Your task to perform on an android device: show emergency info Image 0: 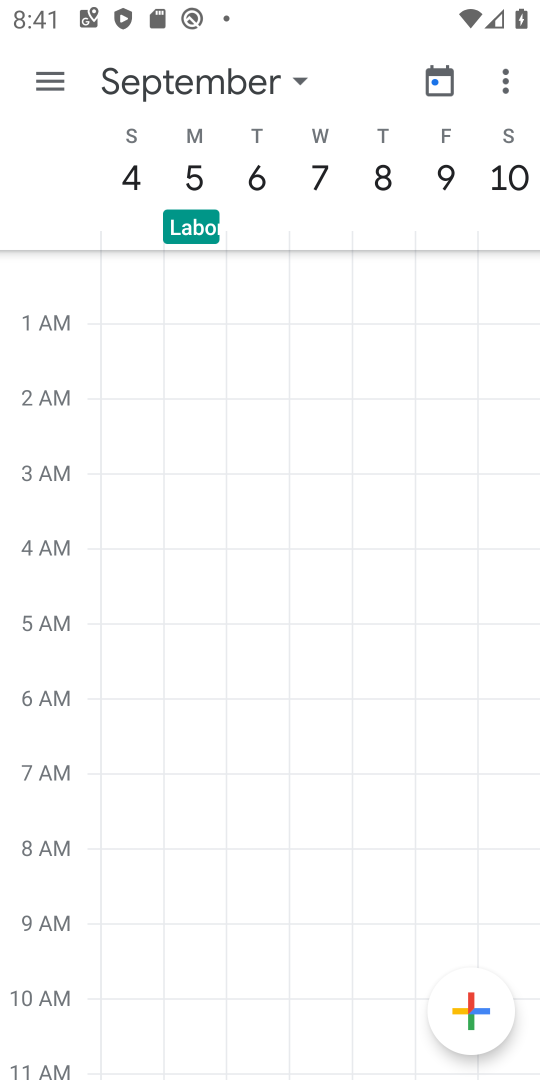
Step 0: press home button
Your task to perform on an android device: show emergency info Image 1: 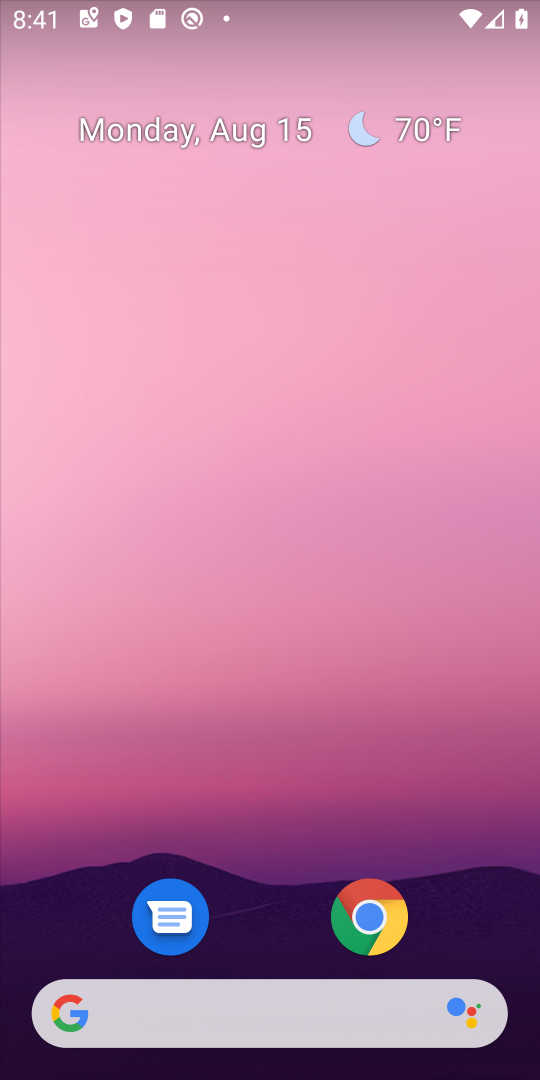
Step 1: drag from (292, 883) to (308, 1)
Your task to perform on an android device: show emergency info Image 2: 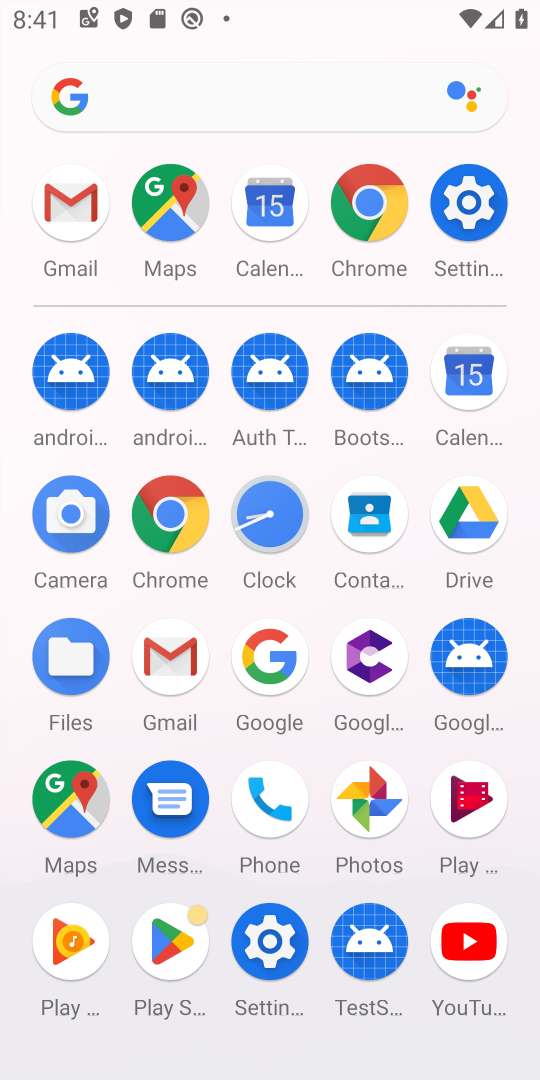
Step 2: click (468, 206)
Your task to perform on an android device: show emergency info Image 3: 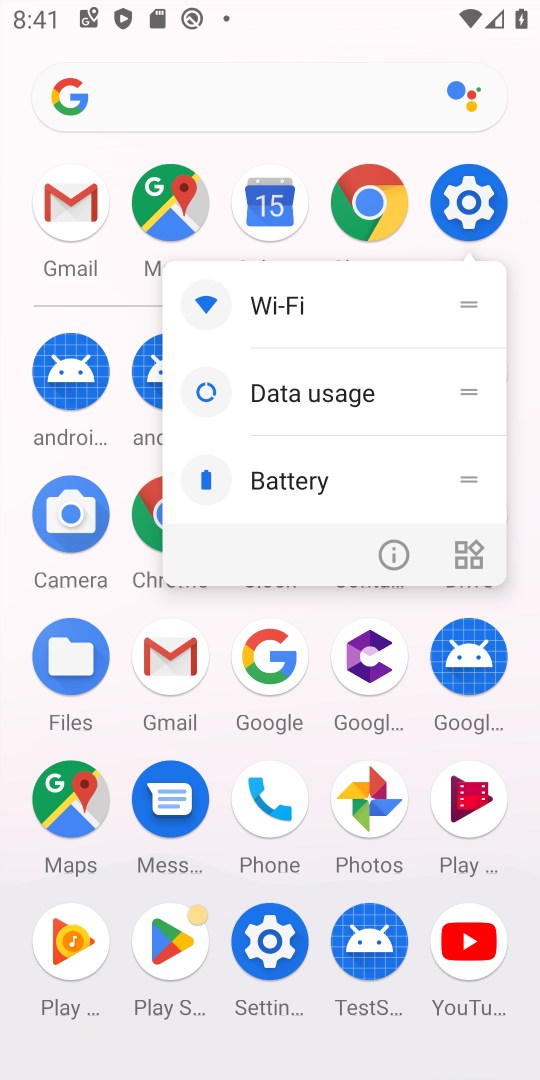
Step 3: click (468, 195)
Your task to perform on an android device: show emergency info Image 4: 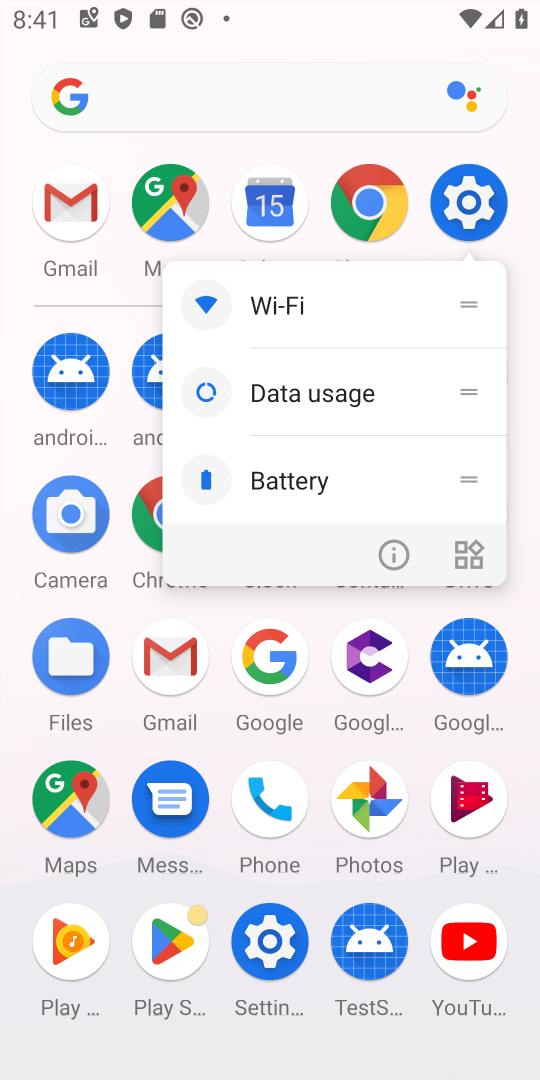
Step 4: click (465, 185)
Your task to perform on an android device: show emergency info Image 5: 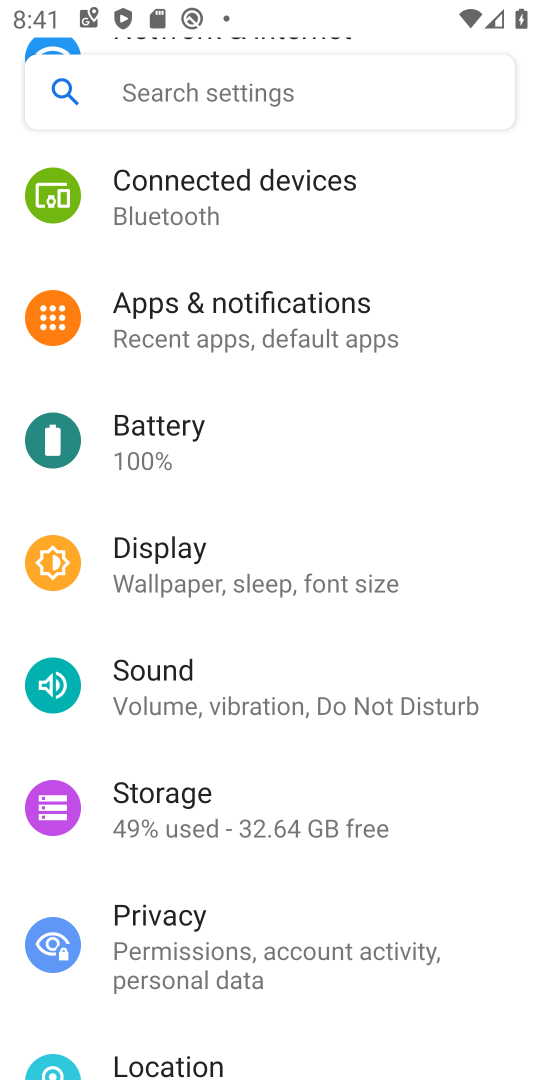
Step 5: drag from (318, 738) to (374, 16)
Your task to perform on an android device: show emergency info Image 6: 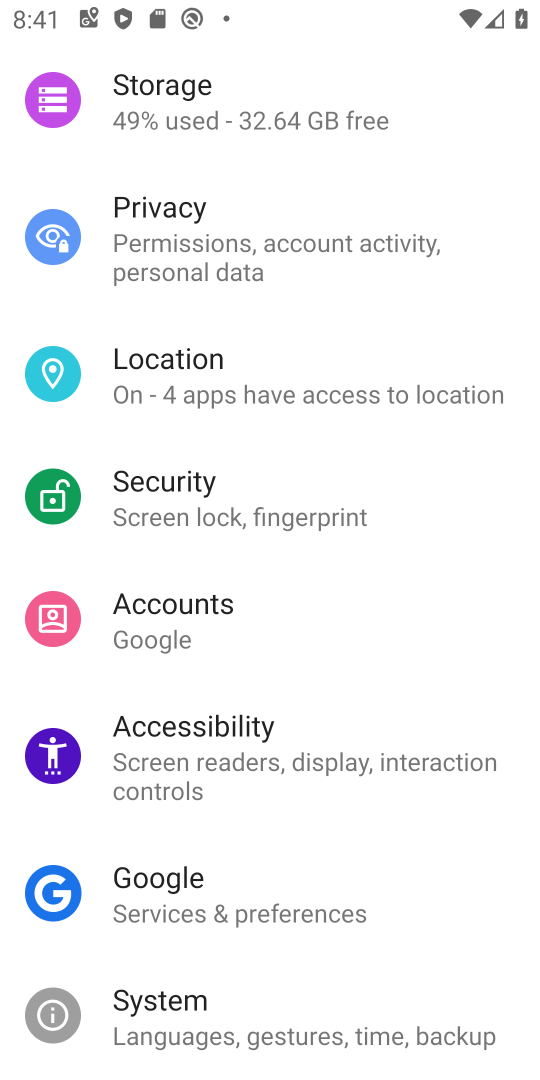
Step 6: drag from (373, 631) to (387, 169)
Your task to perform on an android device: show emergency info Image 7: 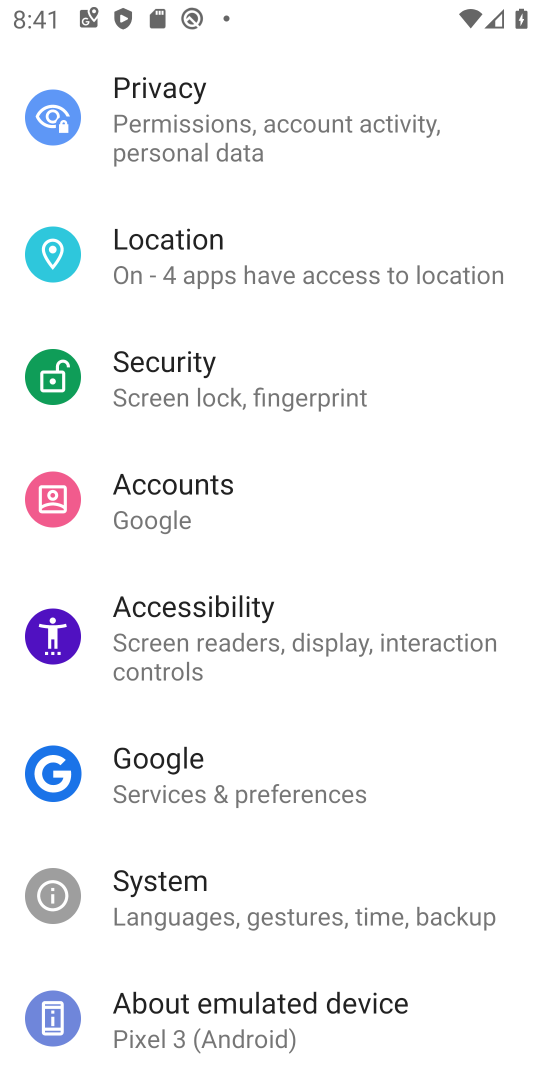
Step 7: click (226, 1010)
Your task to perform on an android device: show emergency info Image 8: 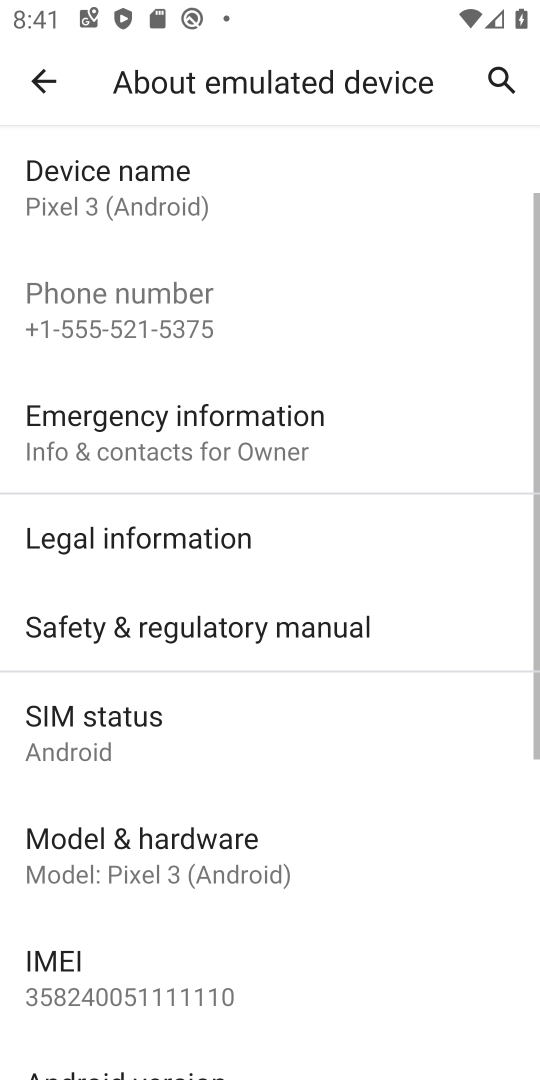
Step 8: click (297, 436)
Your task to perform on an android device: show emergency info Image 9: 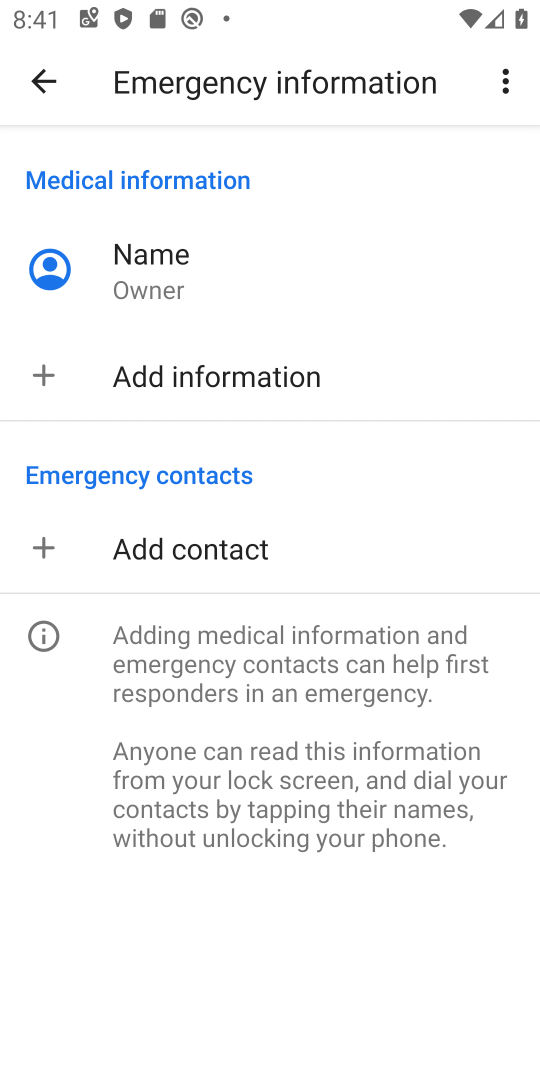
Step 9: task complete